Your task to perform on an android device: open app "PlayWell" Image 0: 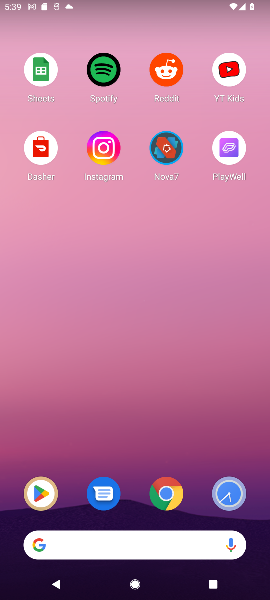
Step 0: drag from (150, 549) to (145, 214)
Your task to perform on an android device: open app "PlayWell" Image 1: 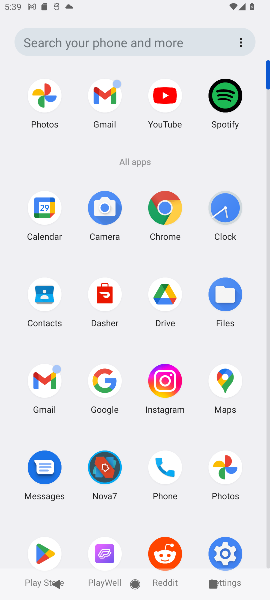
Step 1: click (48, 556)
Your task to perform on an android device: open app "PlayWell" Image 2: 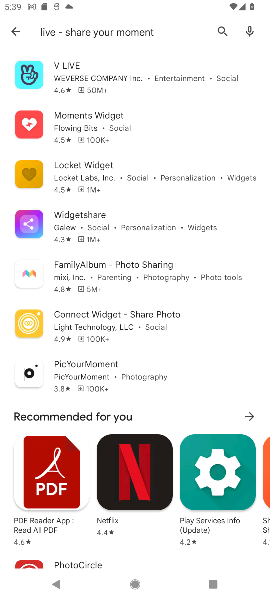
Step 2: click (222, 30)
Your task to perform on an android device: open app "PlayWell" Image 3: 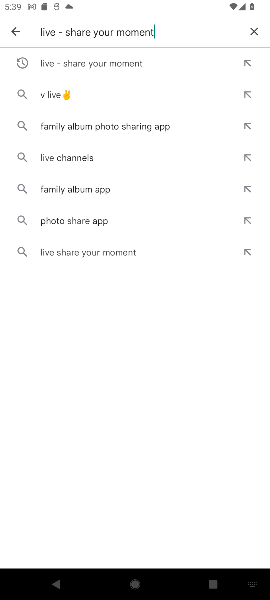
Step 3: click (250, 29)
Your task to perform on an android device: open app "PlayWell" Image 4: 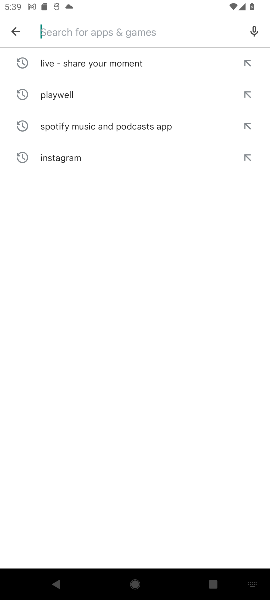
Step 4: type "PlayWell"
Your task to perform on an android device: open app "PlayWell" Image 5: 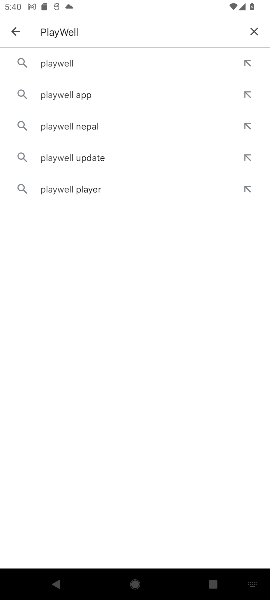
Step 5: click (52, 63)
Your task to perform on an android device: open app "PlayWell" Image 6: 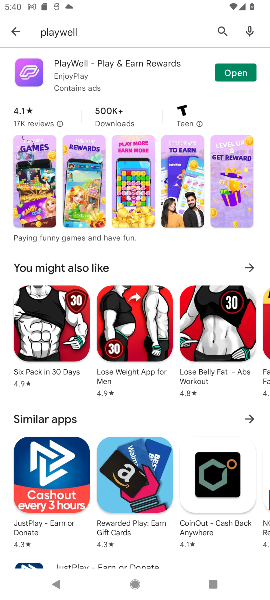
Step 6: click (246, 72)
Your task to perform on an android device: open app "PlayWell" Image 7: 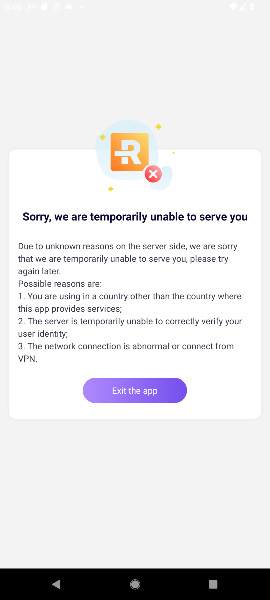
Step 7: task complete